Your task to perform on an android device: toggle show notifications on the lock screen Image 0: 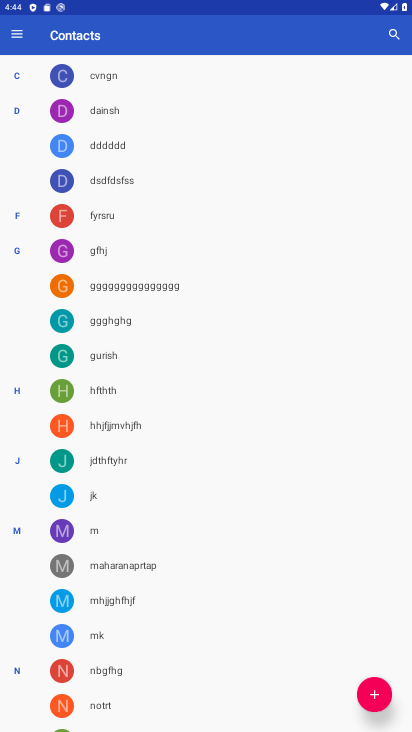
Step 0: press home button
Your task to perform on an android device: toggle show notifications on the lock screen Image 1: 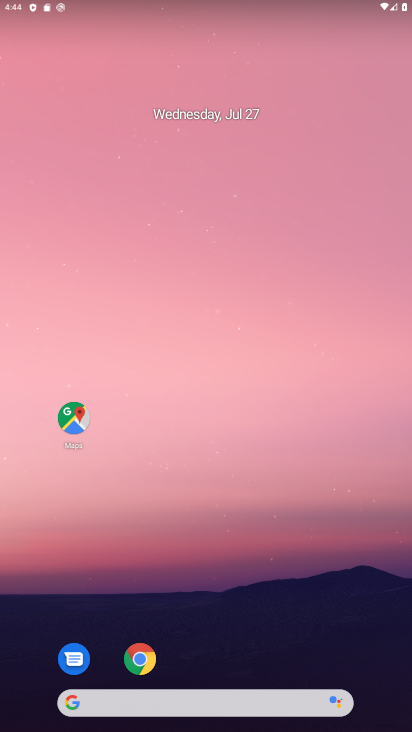
Step 1: drag from (194, 648) to (292, 58)
Your task to perform on an android device: toggle show notifications on the lock screen Image 2: 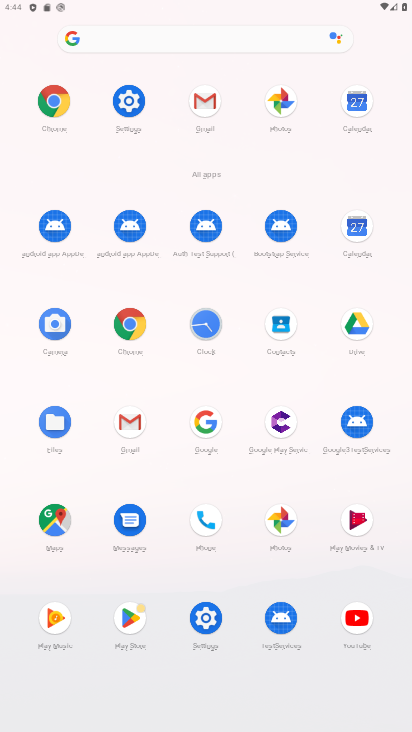
Step 2: click (212, 612)
Your task to perform on an android device: toggle show notifications on the lock screen Image 3: 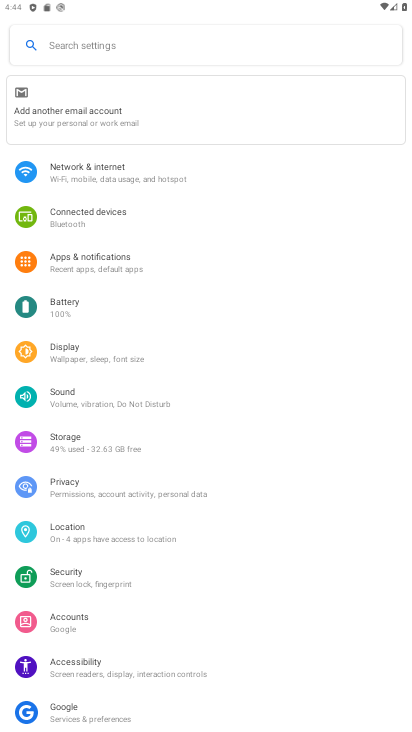
Step 3: click (84, 269)
Your task to perform on an android device: toggle show notifications on the lock screen Image 4: 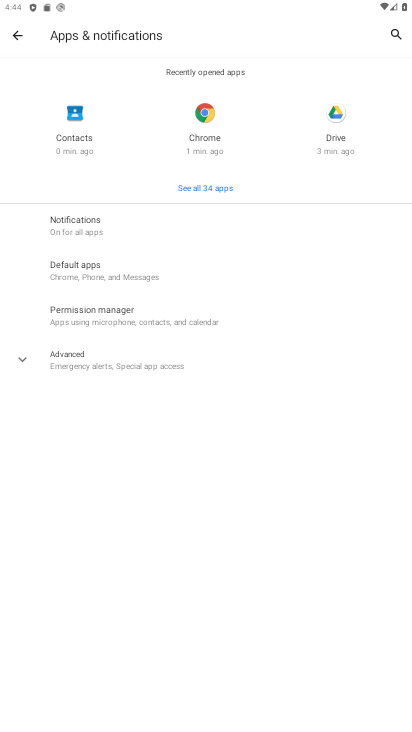
Step 4: click (91, 219)
Your task to perform on an android device: toggle show notifications on the lock screen Image 5: 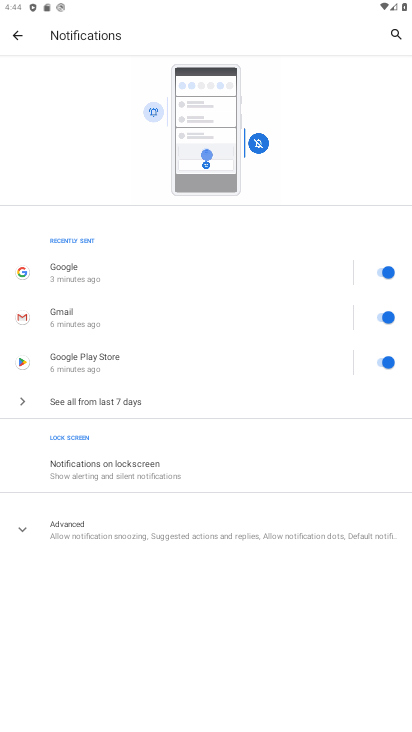
Step 5: click (106, 468)
Your task to perform on an android device: toggle show notifications on the lock screen Image 6: 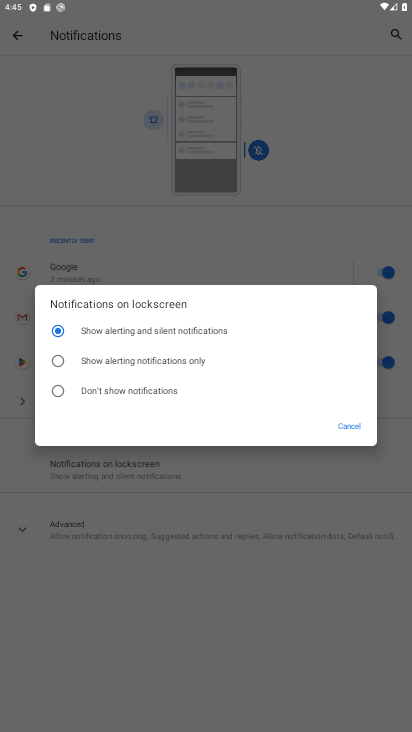
Step 6: click (98, 378)
Your task to perform on an android device: toggle show notifications on the lock screen Image 7: 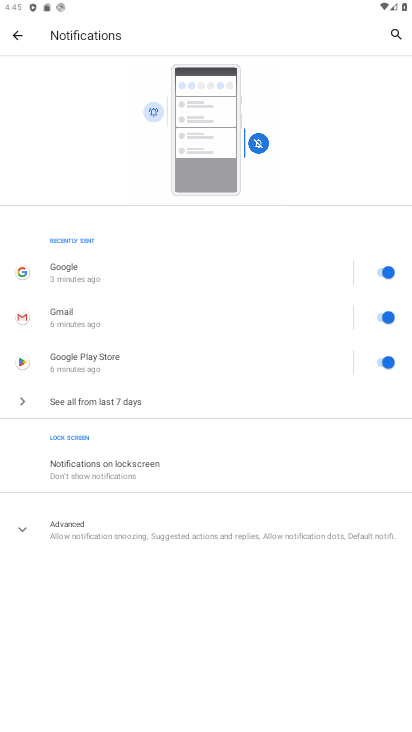
Step 7: task complete